Your task to perform on an android device: change timer sound Image 0: 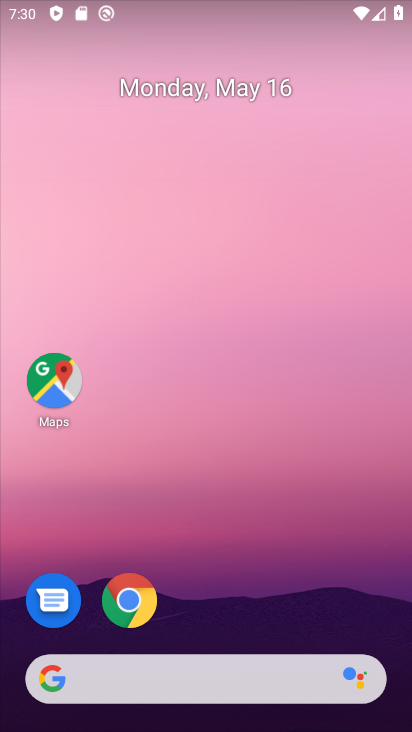
Step 0: drag from (155, 672) to (357, 89)
Your task to perform on an android device: change timer sound Image 1: 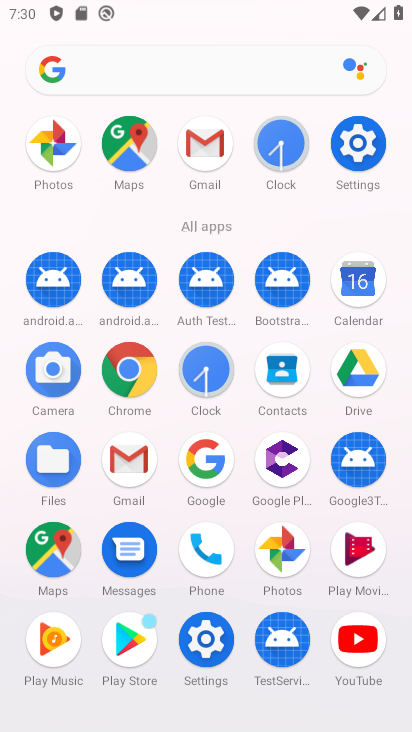
Step 1: click (279, 136)
Your task to perform on an android device: change timer sound Image 2: 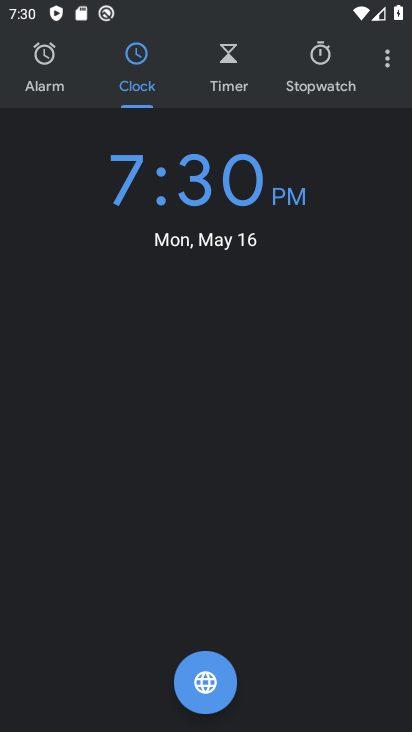
Step 2: click (386, 59)
Your task to perform on an android device: change timer sound Image 3: 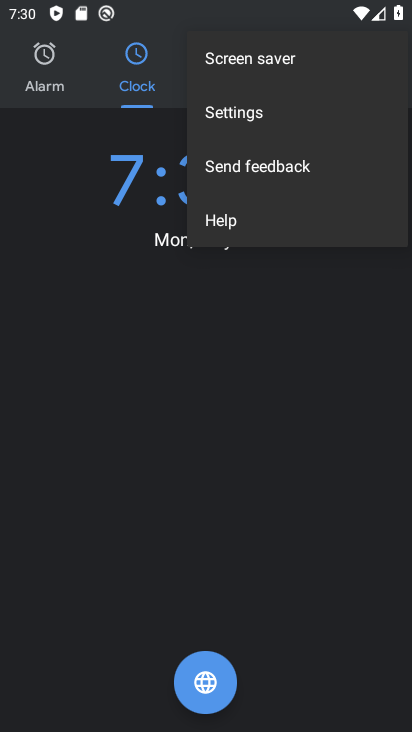
Step 3: click (259, 112)
Your task to perform on an android device: change timer sound Image 4: 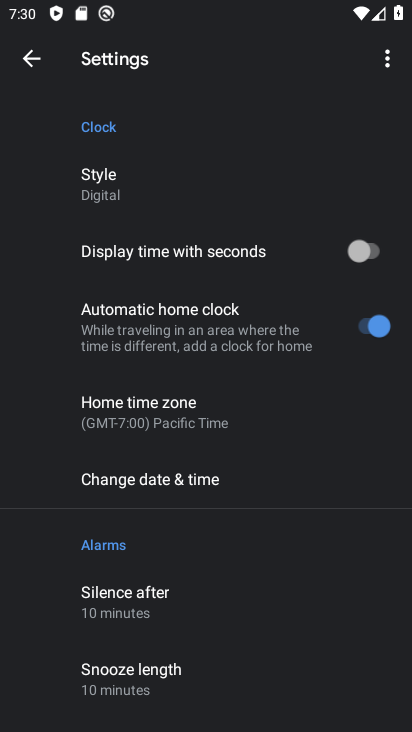
Step 4: drag from (204, 563) to (373, 101)
Your task to perform on an android device: change timer sound Image 5: 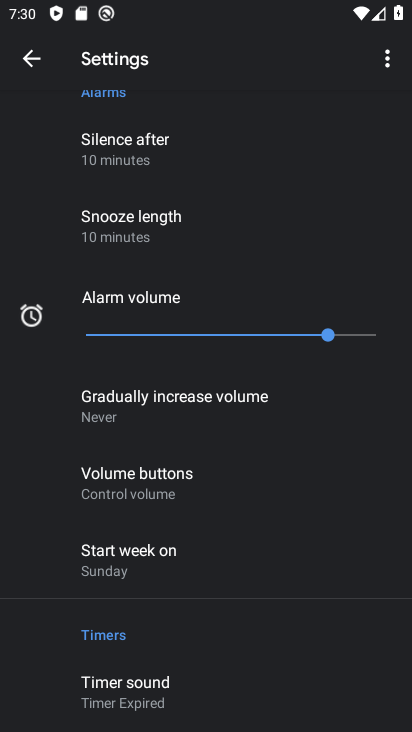
Step 5: drag from (232, 569) to (376, 89)
Your task to perform on an android device: change timer sound Image 6: 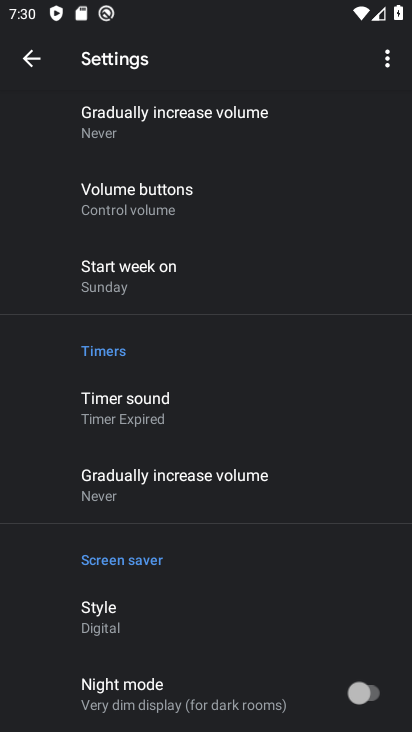
Step 6: click (125, 401)
Your task to perform on an android device: change timer sound Image 7: 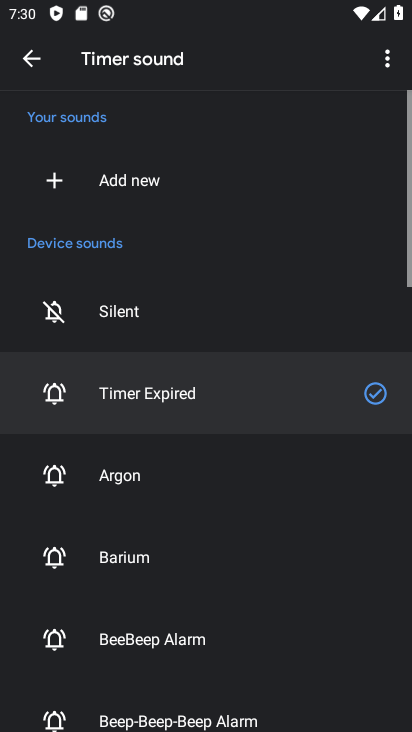
Step 7: click (139, 314)
Your task to perform on an android device: change timer sound Image 8: 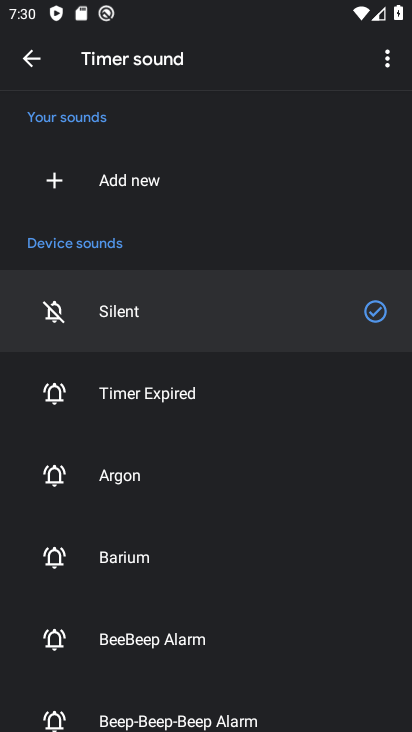
Step 8: task complete